Your task to perform on an android device: Open battery settings Image 0: 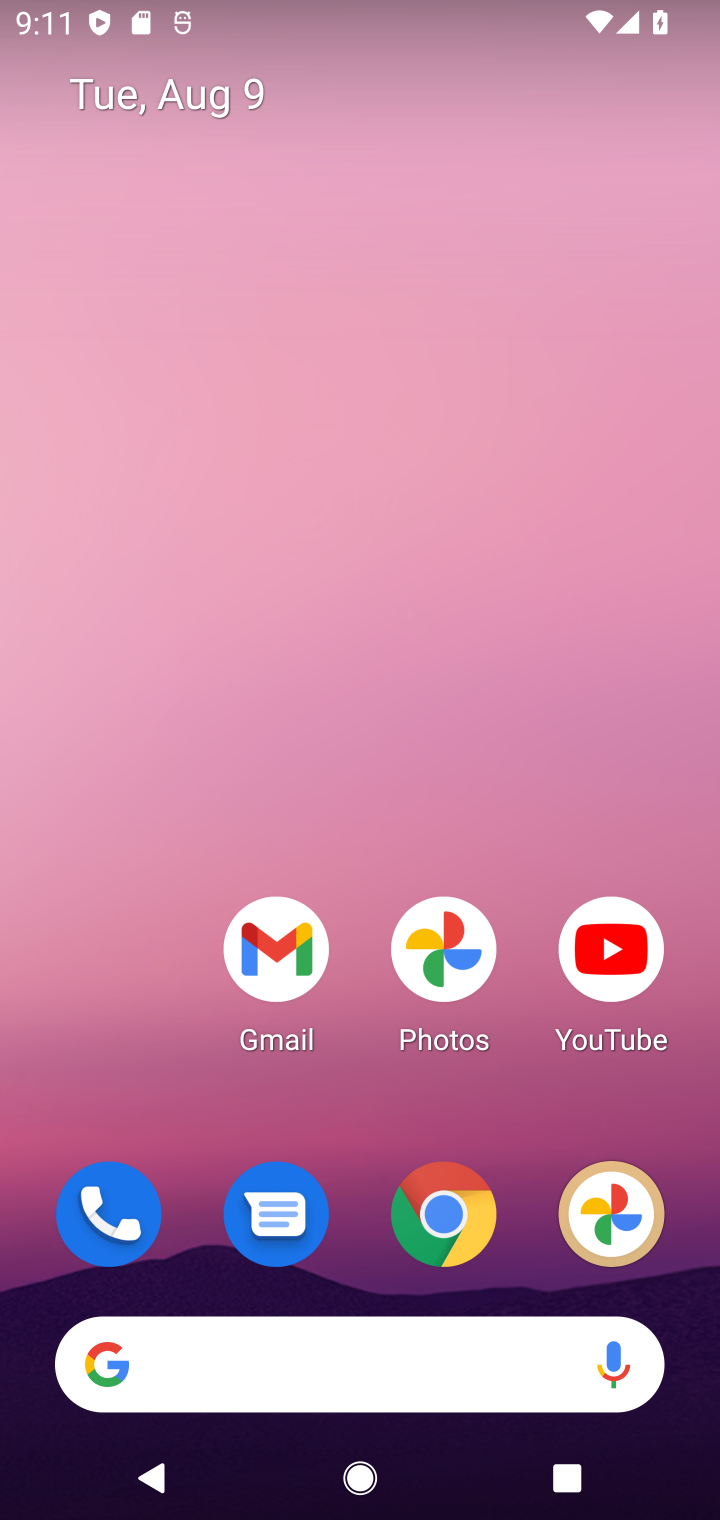
Step 0: drag from (112, 1452) to (309, 309)
Your task to perform on an android device: Open battery settings Image 1: 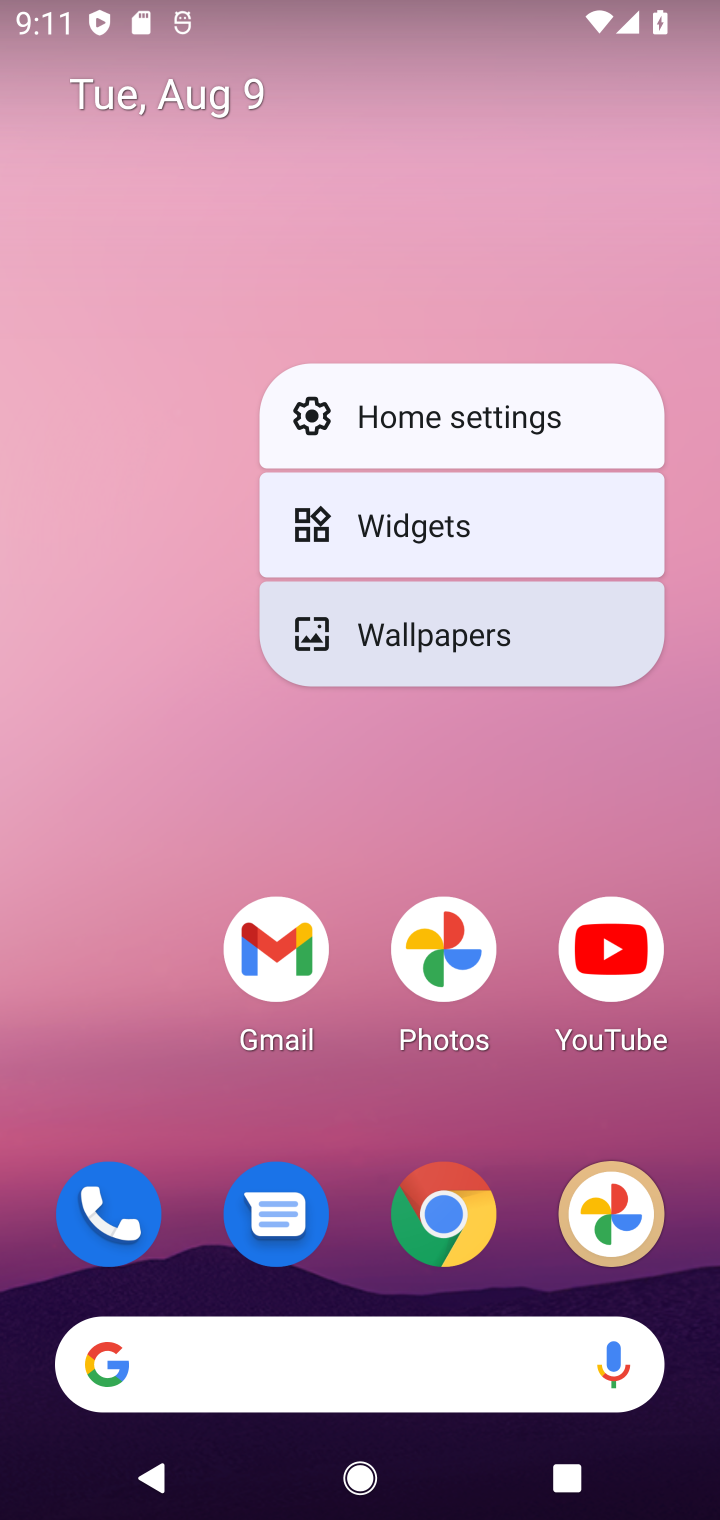
Step 1: drag from (203, 1294) to (394, 854)
Your task to perform on an android device: Open battery settings Image 2: 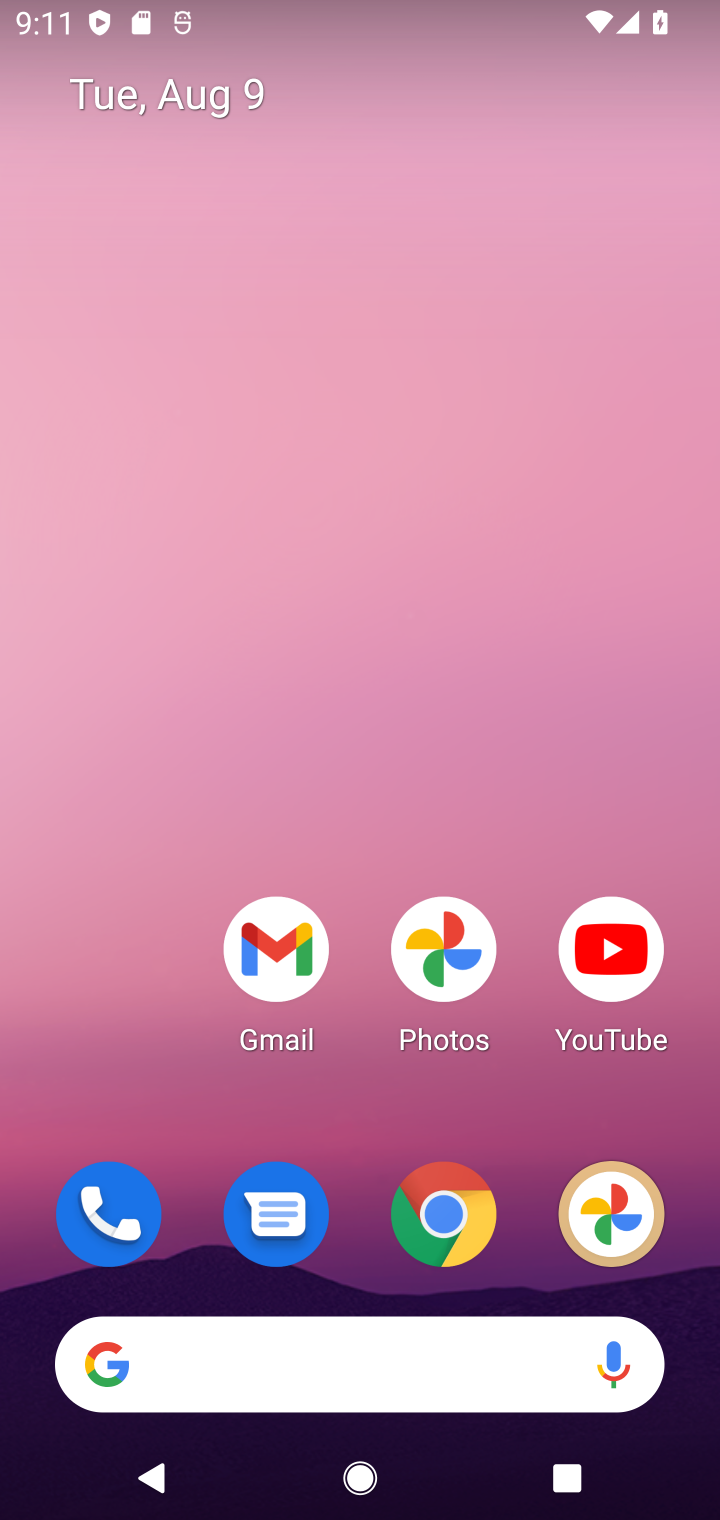
Step 2: click (241, 778)
Your task to perform on an android device: Open battery settings Image 3: 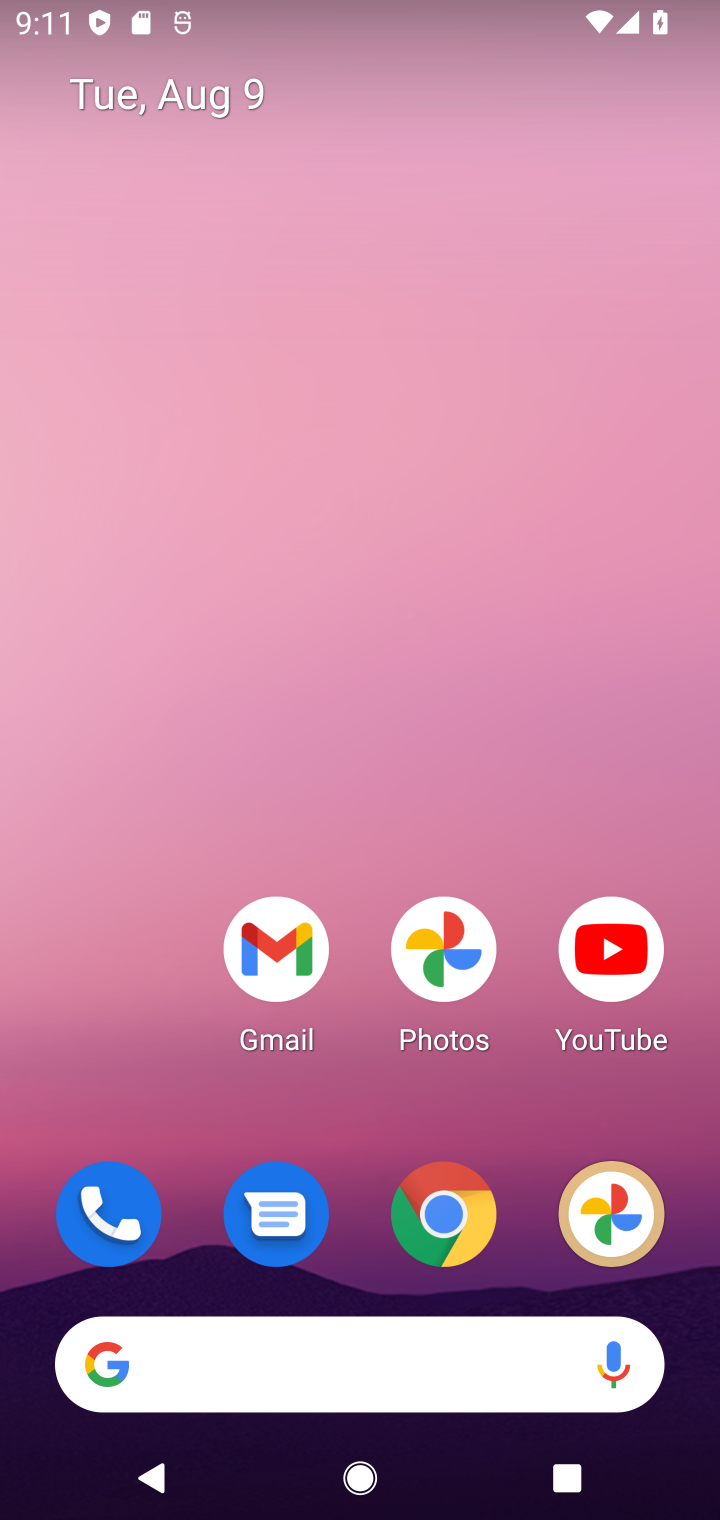
Step 3: task complete